Your task to perform on an android device: open the mobile data screen to see how much data has been used Image 0: 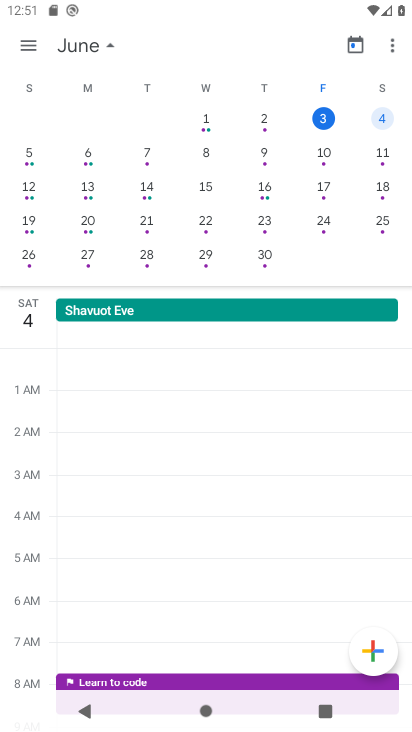
Step 0: press home button
Your task to perform on an android device: open the mobile data screen to see how much data has been used Image 1: 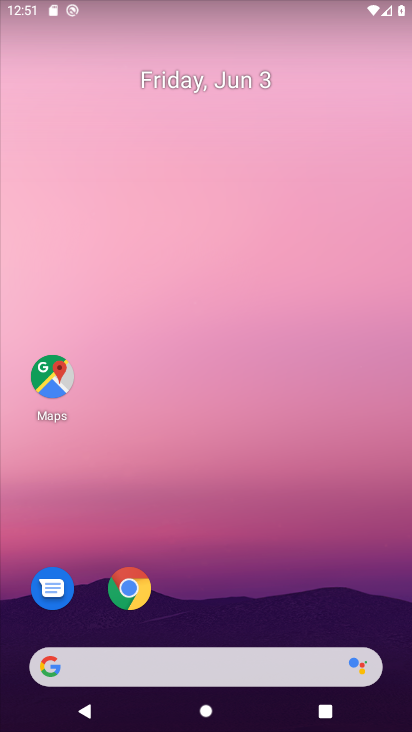
Step 1: drag from (265, 610) to (185, 138)
Your task to perform on an android device: open the mobile data screen to see how much data has been used Image 2: 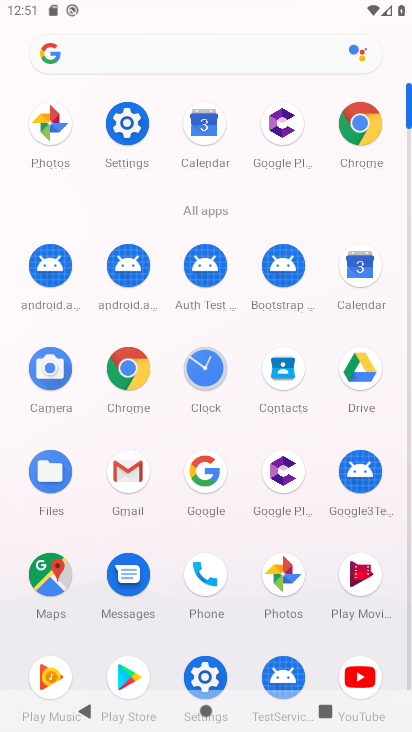
Step 2: click (209, 662)
Your task to perform on an android device: open the mobile data screen to see how much data has been used Image 3: 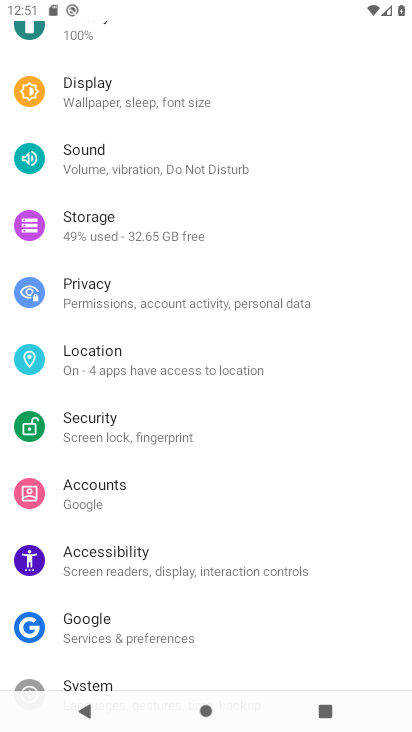
Step 3: drag from (220, 141) to (231, 482)
Your task to perform on an android device: open the mobile data screen to see how much data has been used Image 4: 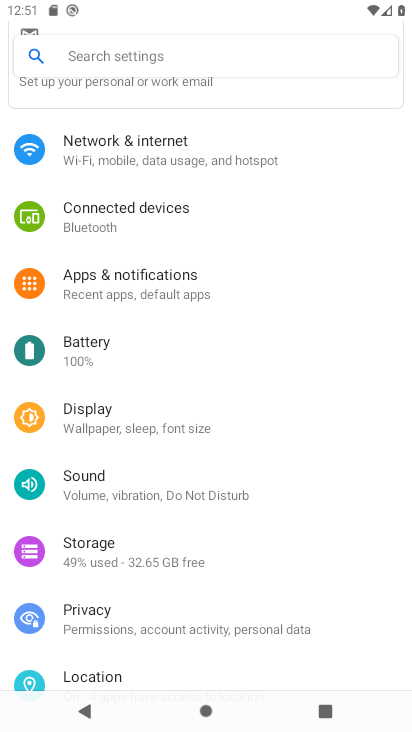
Step 4: click (185, 169)
Your task to perform on an android device: open the mobile data screen to see how much data has been used Image 5: 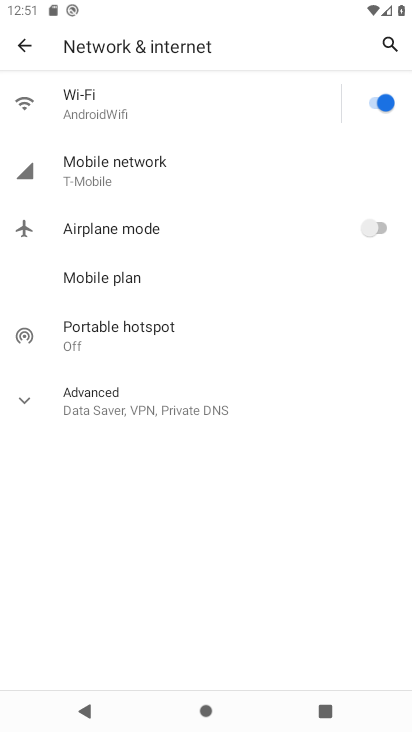
Step 5: click (134, 169)
Your task to perform on an android device: open the mobile data screen to see how much data has been used Image 6: 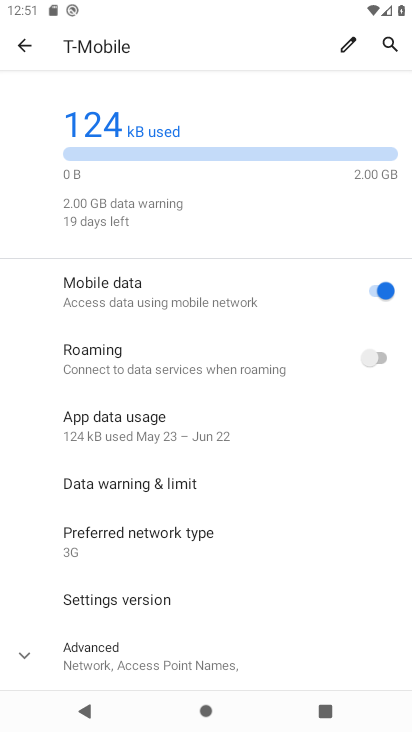
Step 6: task complete